Your task to perform on an android device: Open the web browser Image 0: 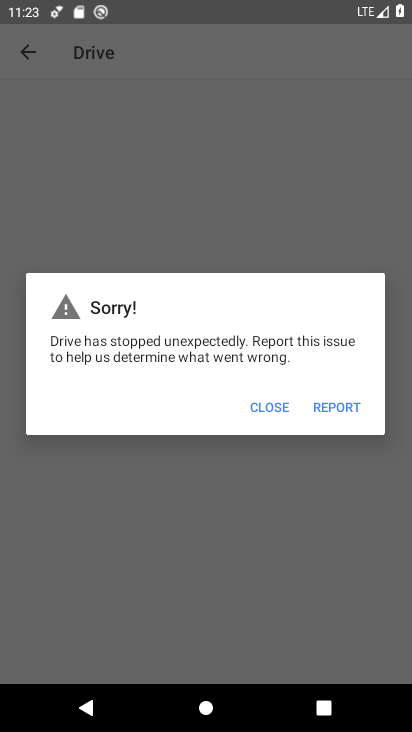
Step 0: press home button
Your task to perform on an android device: Open the web browser Image 1: 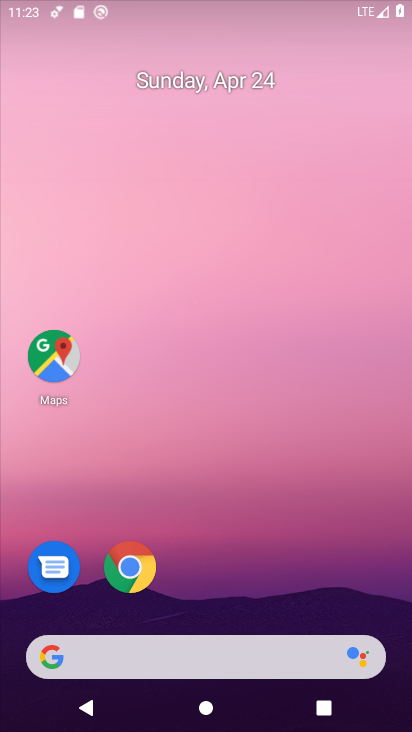
Step 1: drag from (236, 629) to (251, 249)
Your task to perform on an android device: Open the web browser Image 2: 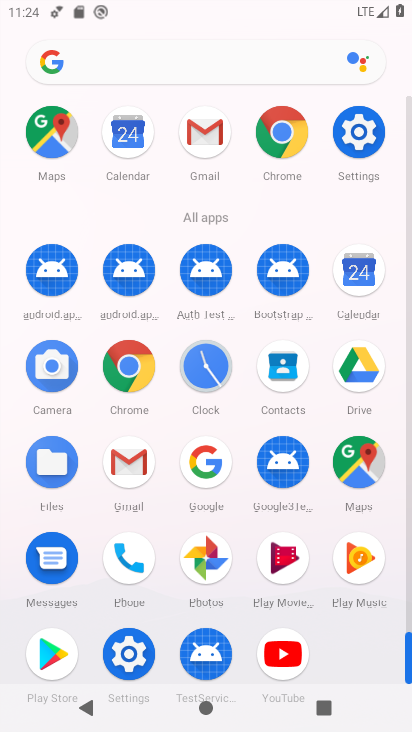
Step 2: click (284, 169)
Your task to perform on an android device: Open the web browser Image 3: 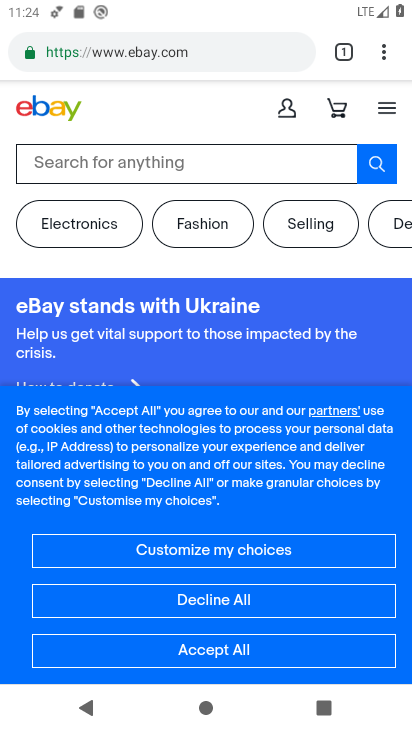
Step 3: task complete